Your task to perform on an android device: Is it going to rain today? Image 0: 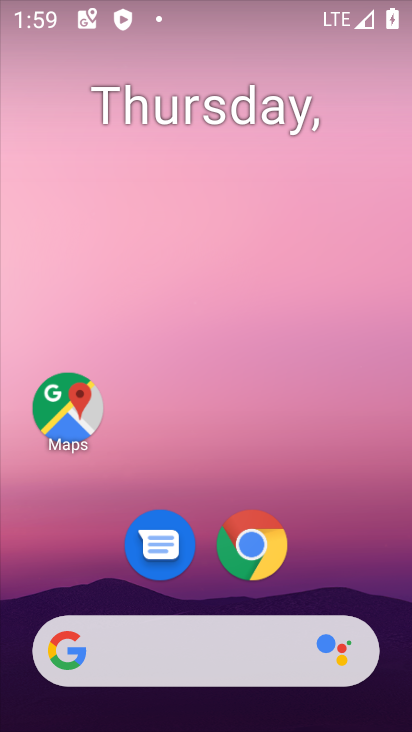
Step 0: click (257, 447)
Your task to perform on an android device: Is it going to rain today? Image 1: 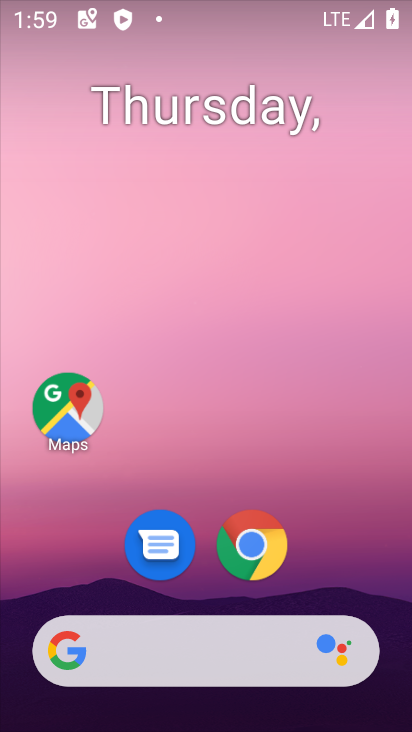
Step 1: click (235, 651)
Your task to perform on an android device: Is it going to rain today? Image 2: 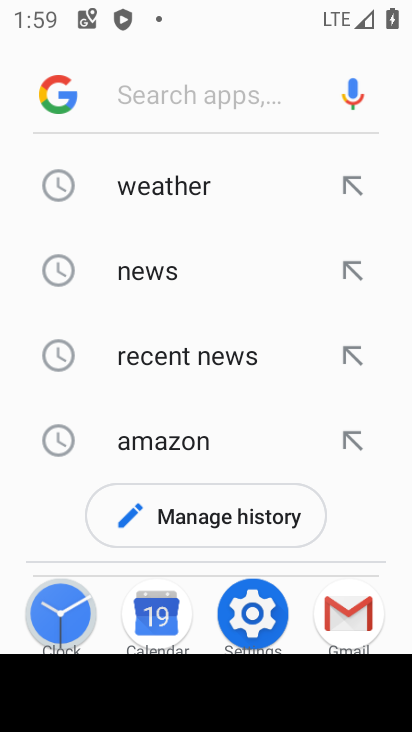
Step 2: type "Is it going to rain today?"
Your task to perform on an android device: Is it going to rain today? Image 3: 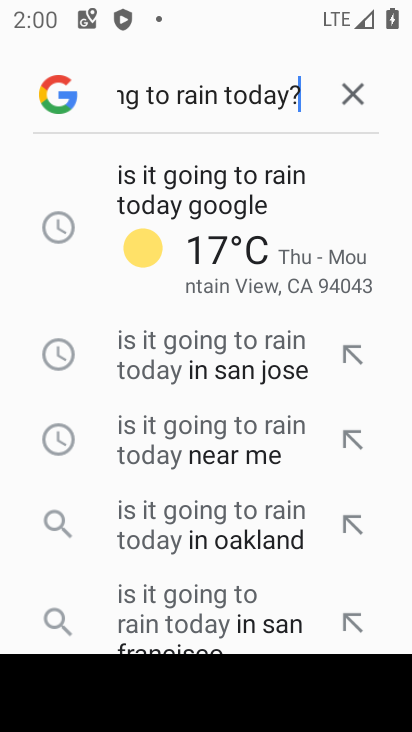
Step 3: click (212, 206)
Your task to perform on an android device: Is it going to rain today? Image 4: 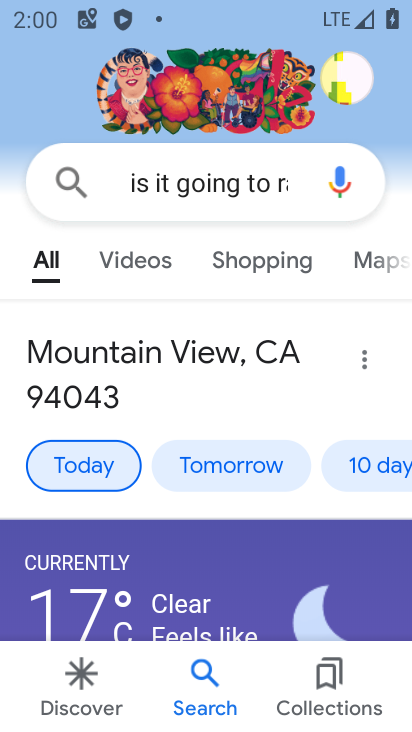
Step 4: task complete